Your task to perform on an android device: Open eBay Image 0: 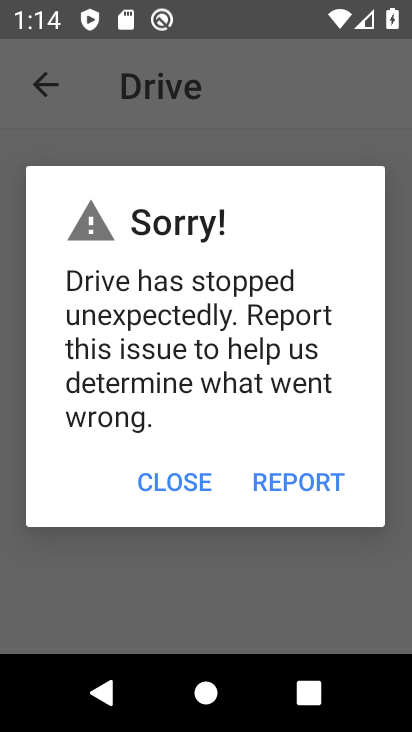
Step 0: press home button
Your task to perform on an android device: Open eBay Image 1: 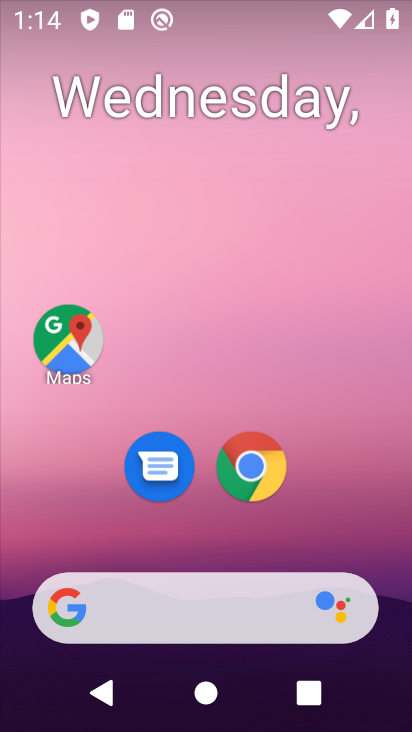
Step 1: click (258, 480)
Your task to perform on an android device: Open eBay Image 2: 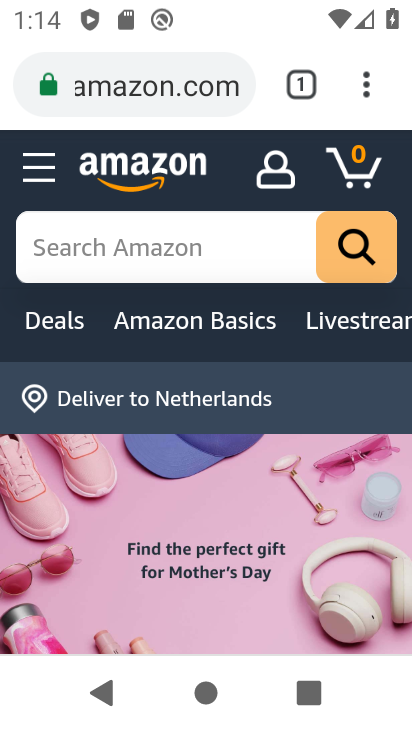
Step 2: click (297, 77)
Your task to perform on an android device: Open eBay Image 3: 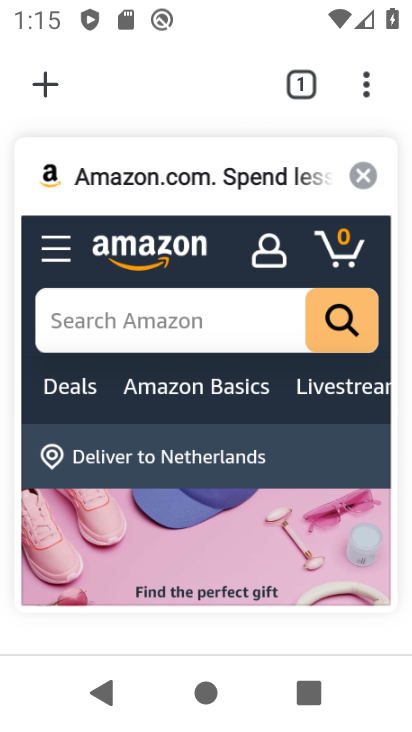
Step 3: click (44, 84)
Your task to perform on an android device: Open eBay Image 4: 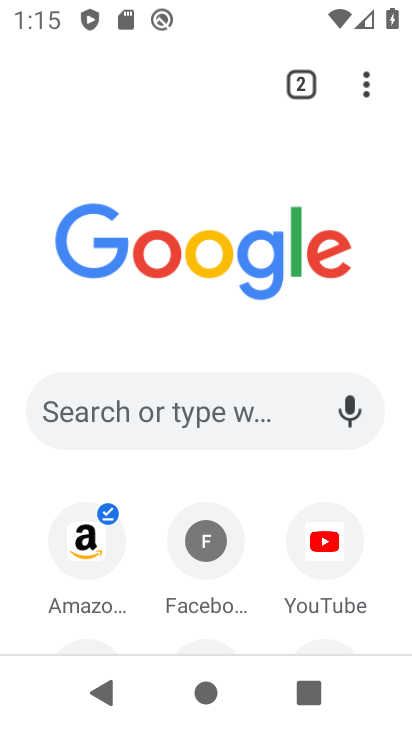
Step 4: drag from (282, 529) to (251, 46)
Your task to perform on an android device: Open eBay Image 5: 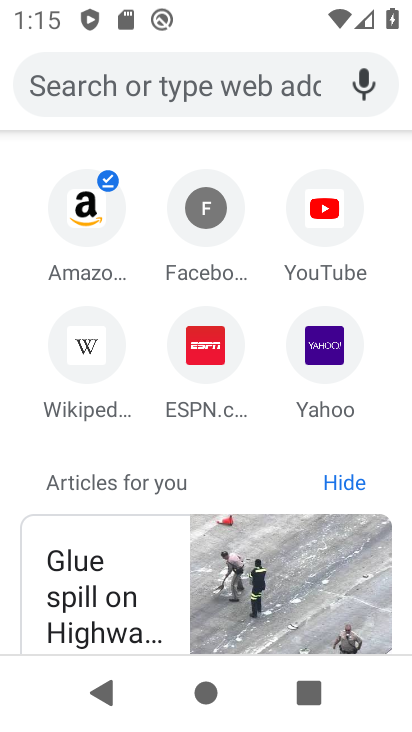
Step 5: click (174, 93)
Your task to perform on an android device: Open eBay Image 6: 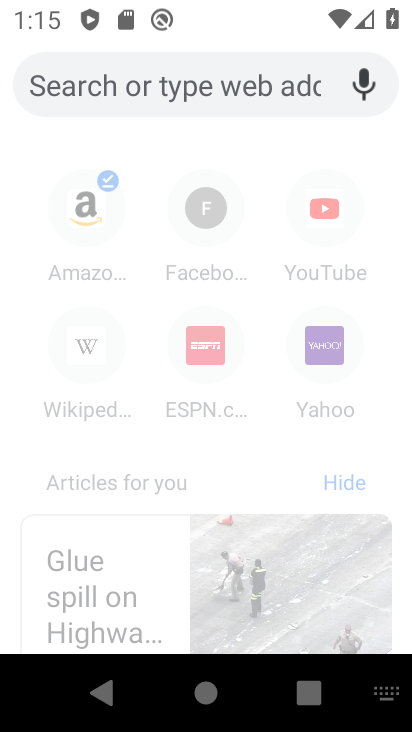
Step 6: type "ebay"
Your task to perform on an android device: Open eBay Image 7: 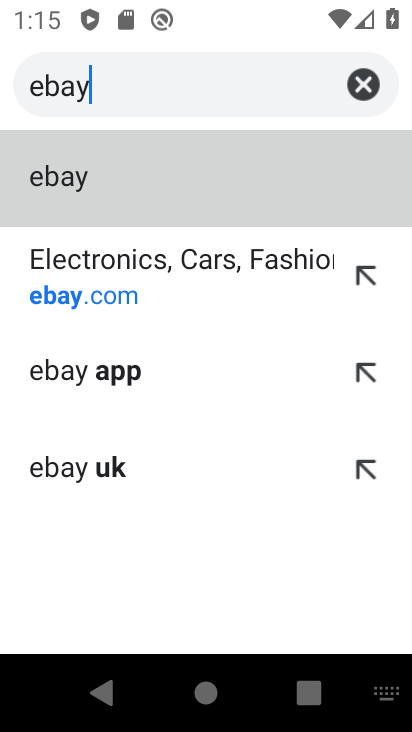
Step 7: click (53, 305)
Your task to perform on an android device: Open eBay Image 8: 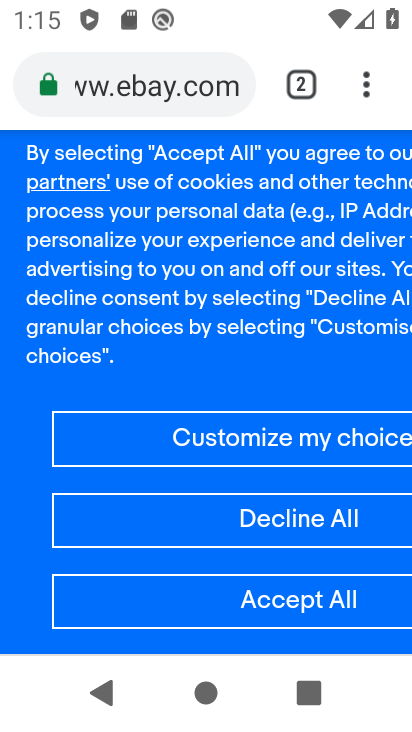
Step 8: task complete